Your task to perform on an android device: Open settings Image 0: 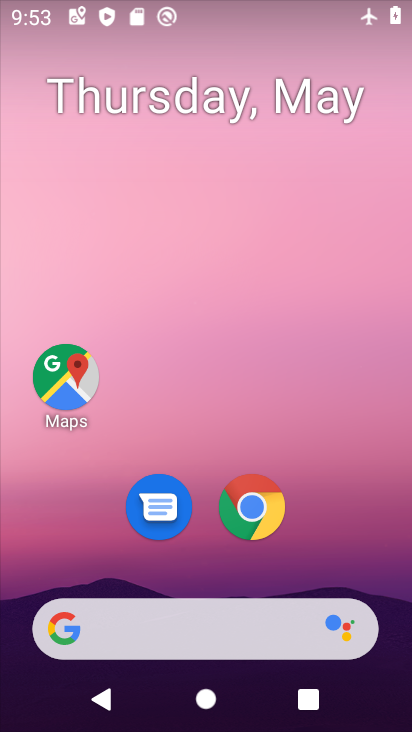
Step 0: drag from (238, 686) to (214, 295)
Your task to perform on an android device: Open settings Image 1: 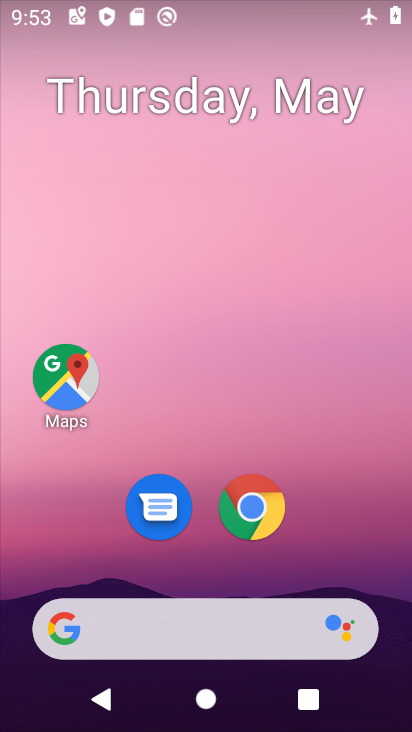
Step 1: drag from (227, 691) to (288, 53)
Your task to perform on an android device: Open settings Image 2: 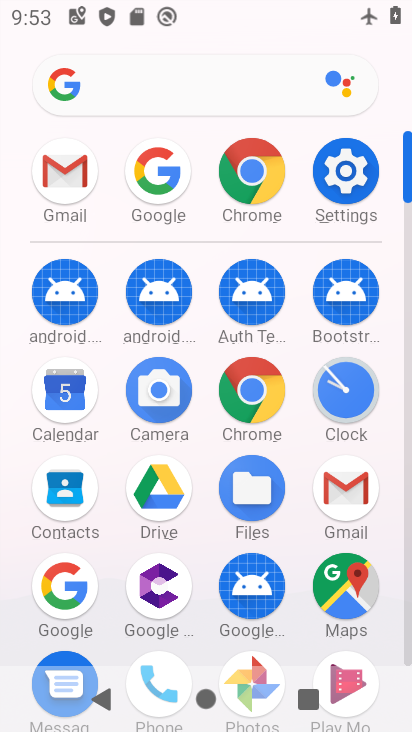
Step 2: click (354, 193)
Your task to perform on an android device: Open settings Image 3: 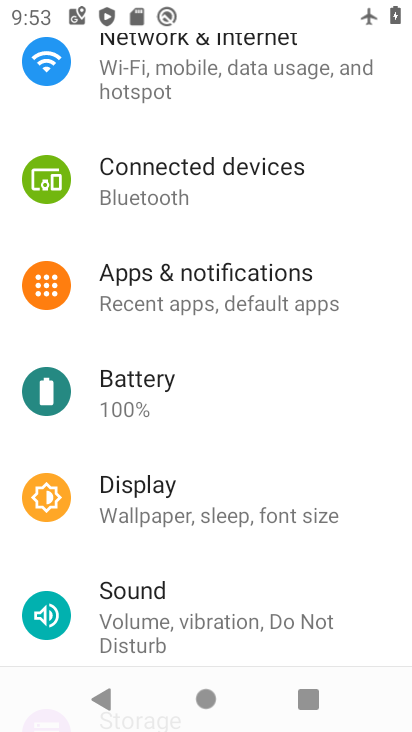
Step 3: click (247, 202)
Your task to perform on an android device: Open settings Image 4: 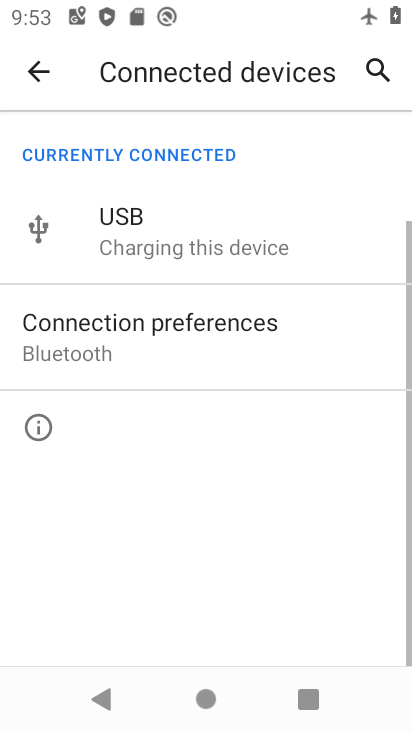
Step 4: task complete